Your task to perform on an android device: find snoozed emails in the gmail app Image 0: 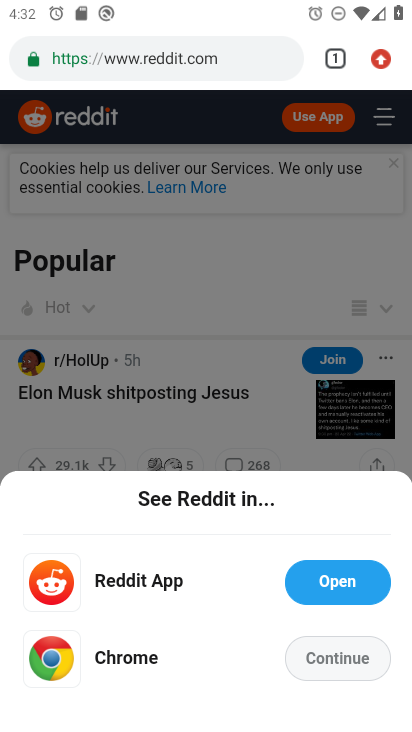
Step 0: press back button
Your task to perform on an android device: find snoozed emails in the gmail app Image 1: 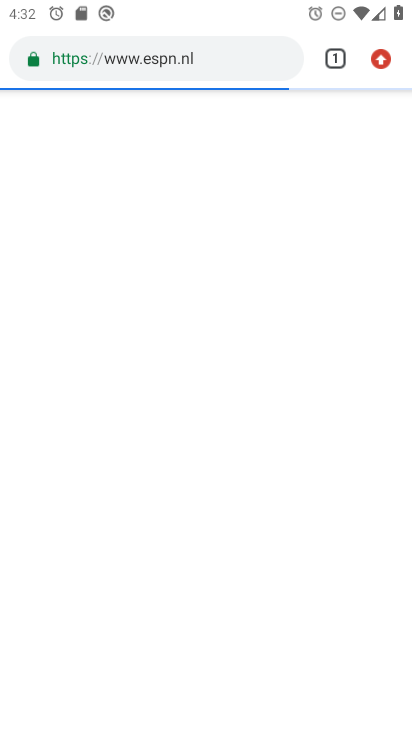
Step 1: press back button
Your task to perform on an android device: find snoozed emails in the gmail app Image 2: 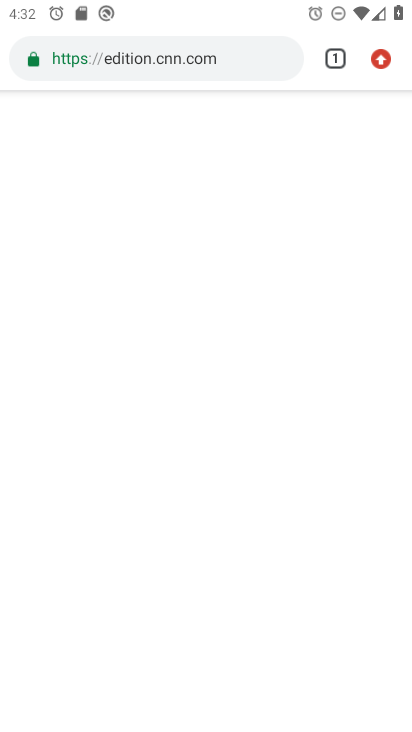
Step 2: press home button
Your task to perform on an android device: find snoozed emails in the gmail app Image 3: 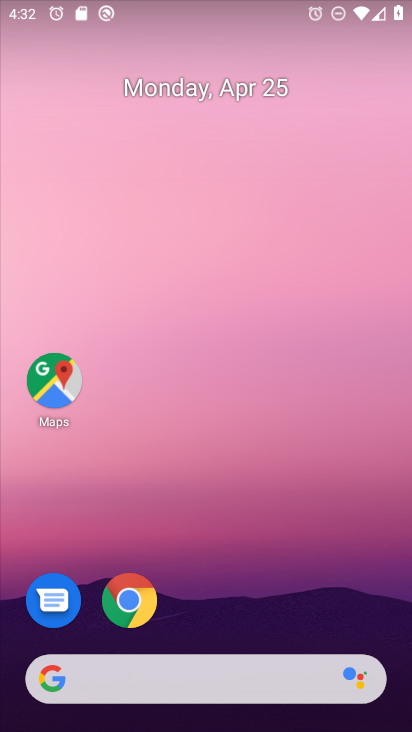
Step 3: drag from (297, 561) to (237, 57)
Your task to perform on an android device: find snoozed emails in the gmail app Image 4: 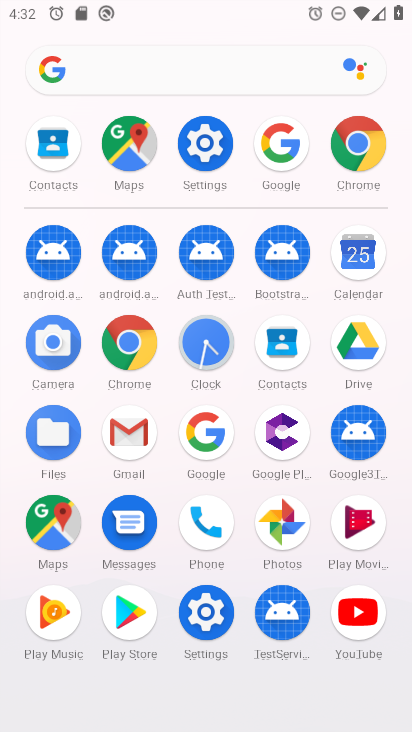
Step 4: drag from (13, 453) to (14, 277)
Your task to perform on an android device: find snoozed emails in the gmail app Image 5: 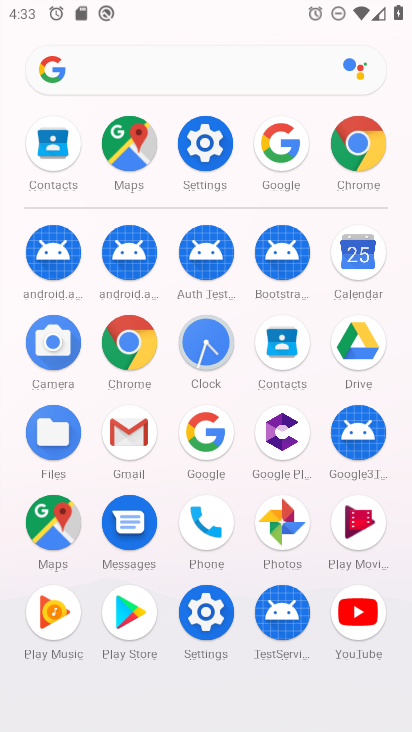
Step 5: click (134, 429)
Your task to perform on an android device: find snoozed emails in the gmail app Image 6: 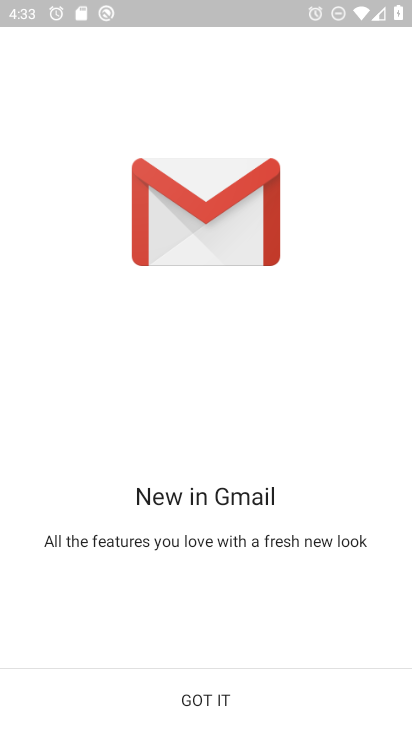
Step 6: click (253, 699)
Your task to perform on an android device: find snoozed emails in the gmail app Image 7: 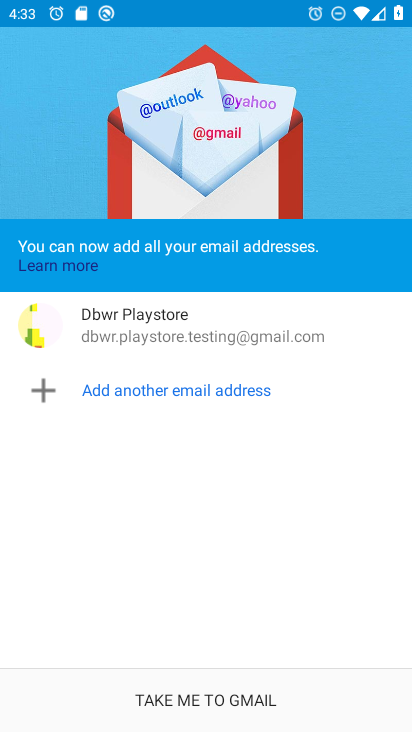
Step 7: click (202, 701)
Your task to perform on an android device: find snoozed emails in the gmail app Image 8: 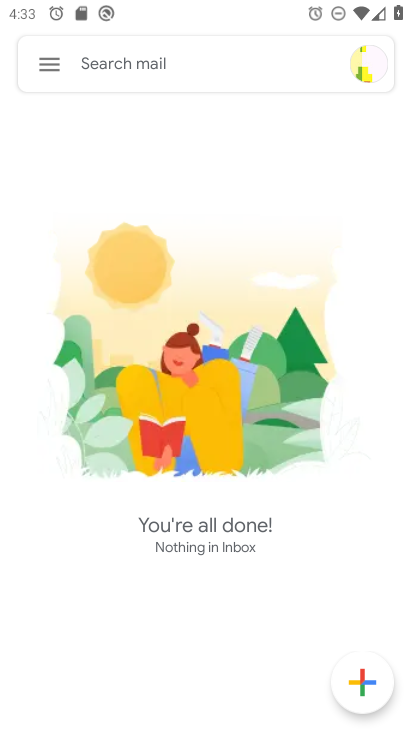
Step 8: click (53, 68)
Your task to perform on an android device: find snoozed emails in the gmail app Image 9: 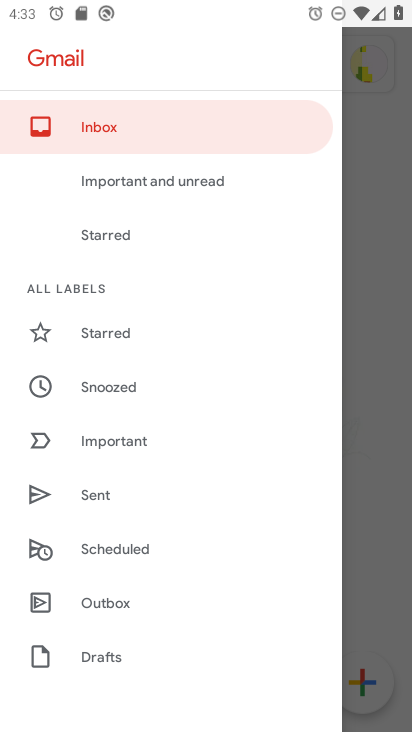
Step 9: drag from (238, 580) to (225, 299)
Your task to perform on an android device: find snoozed emails in the gmail app Image 10: 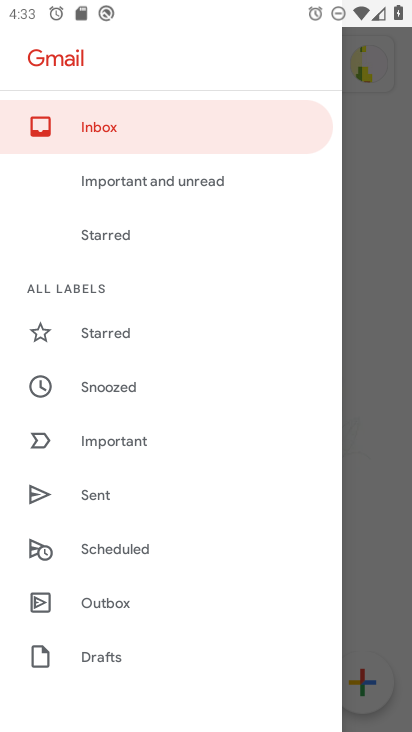
Step 10: click (123, 388)
Your task to perform on an android device: find snoozed emails in the gmail app Image 11: 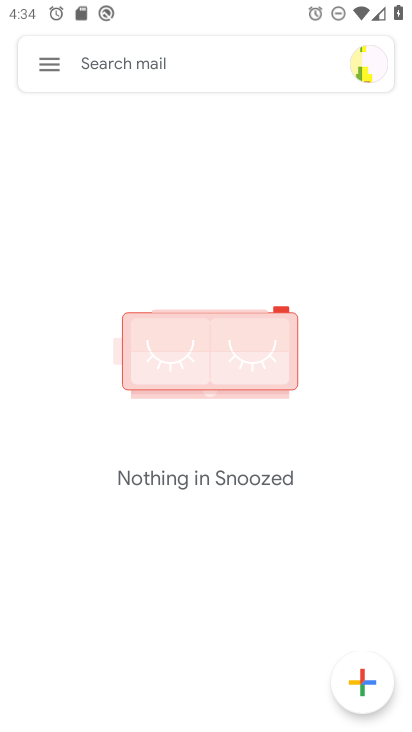
Step 11: task complete